Your task to perform on an android device: check out phone information Image 0: 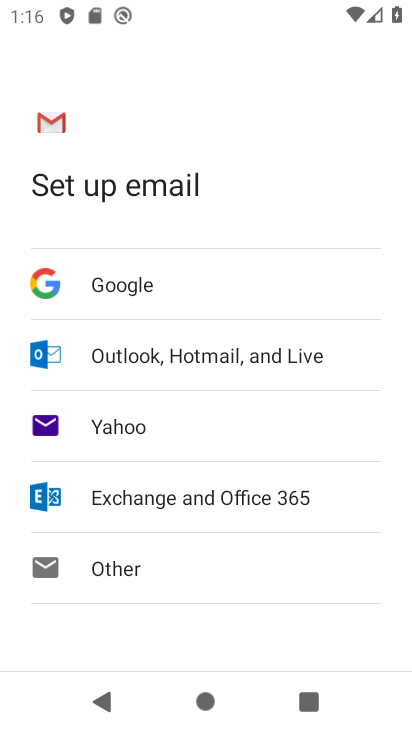
Step 0: press home button
Your task to perform on an android device: check out phone information Image 1: 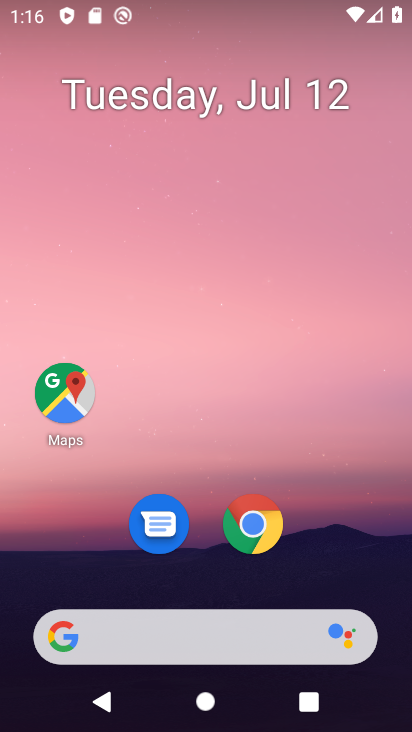
Step 1: drag from (313, 549) to (285, 35)
Your task to perform on an android device: check out phone information Image 2: 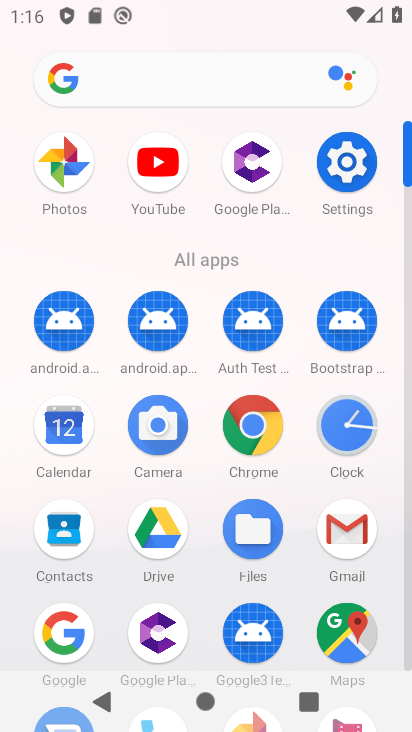
Step 2: drag from (211, 469) to (239, 247)
Your task to perform on an android device: check out phone information Image 3: 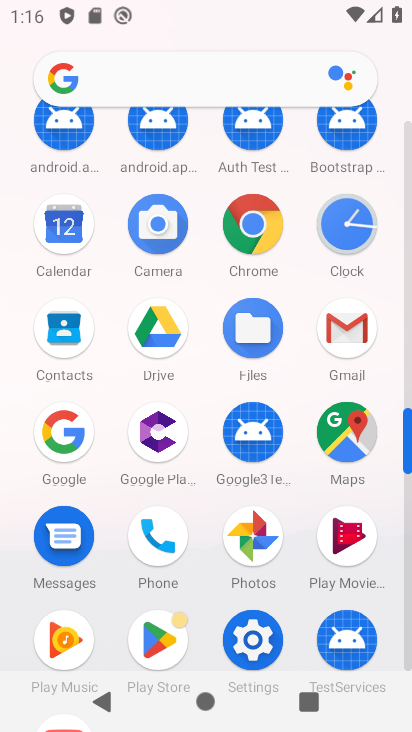
Step 3: drag from (216, 164) to (236, 90)
Your task to perform on an android device: check out phone information Image 4: 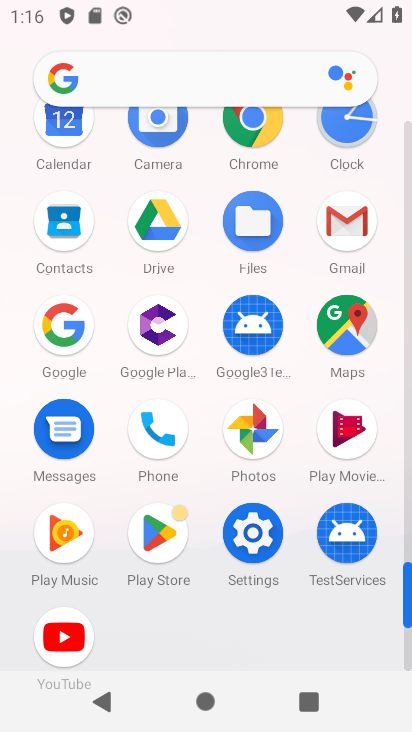
Step 4: click (168, 416)
Your task to perform on an android device: check out phone information Image 5: 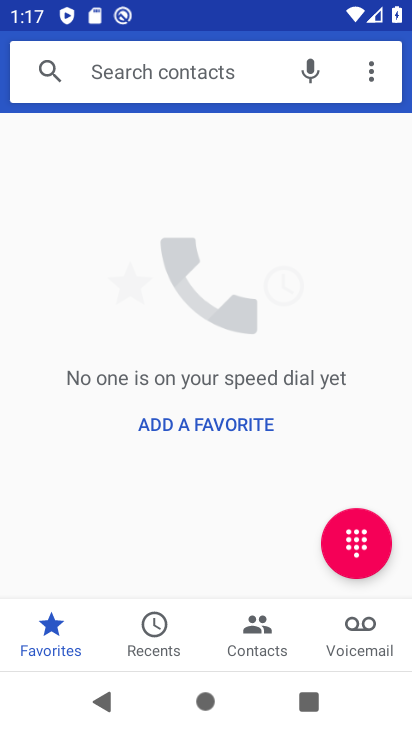
Step 5: click (370, 76)
Your task to perform on an android device: check out phone information Image 6: 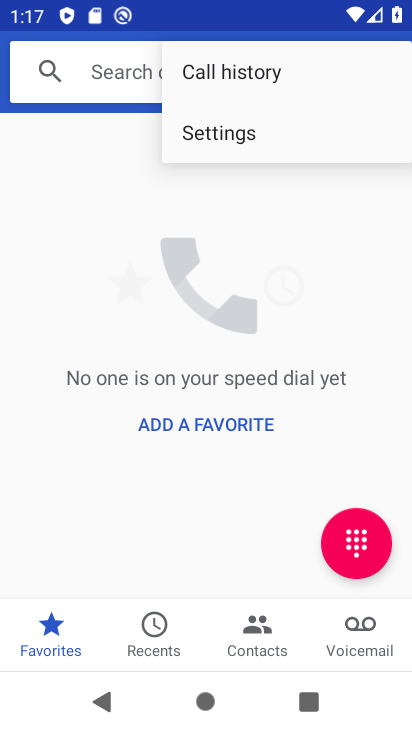
Step 6: click (284, 128)
Your task to perform on an android device: check out phone information Image 7: 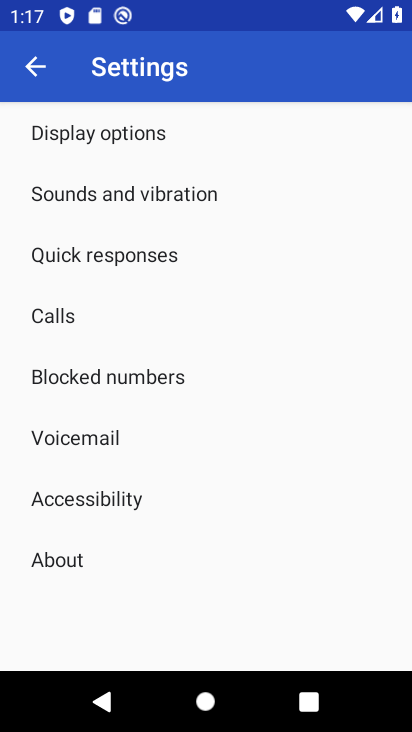
Step 7: click (49, 559)
Your task to perform on an android device: check out phone information Image 8: 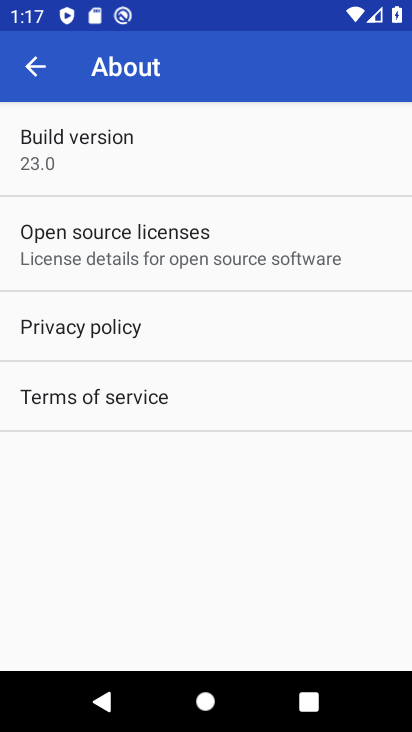
Step 8: task complete